Your task to perform on an android device: set default search engine in the chrome app Image 0: 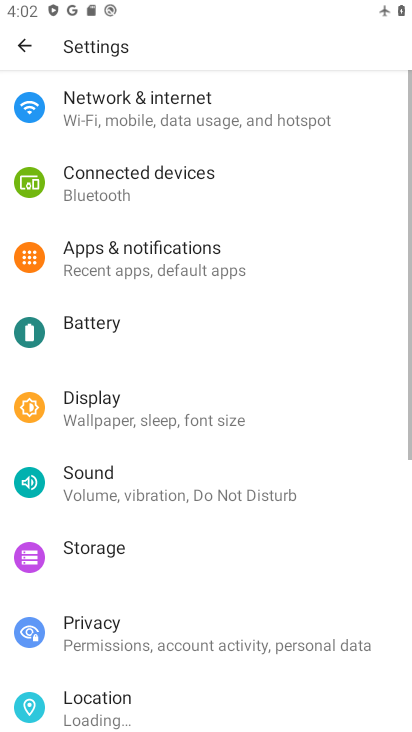
Step 0: drag from (218, 700) to (175, 241)
Your task to perform on an android device: set default search engine in the chrome app Image 1: 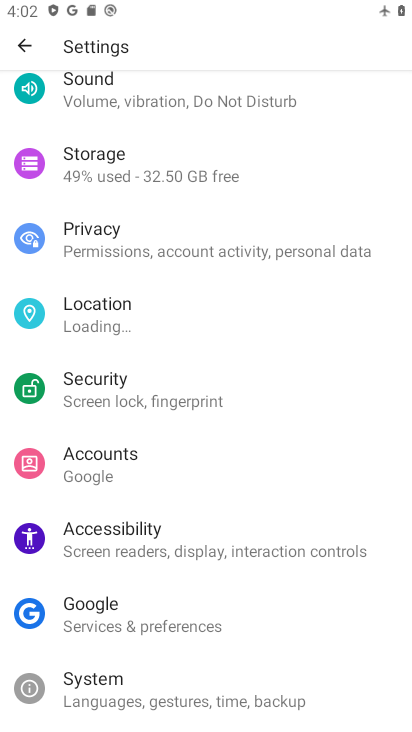
Step 1: press back button
Your task to perform on an android device: set default search engine in the chrome app Image 2: 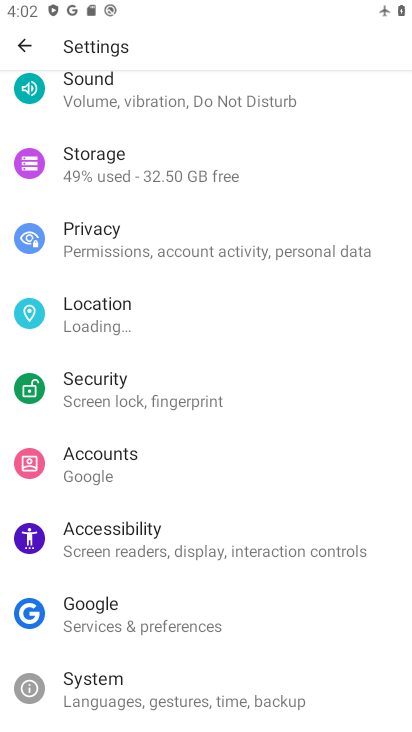
Step 2: press back button
Your task to perform on an android device: set default search engine in the chrome app Image 3: 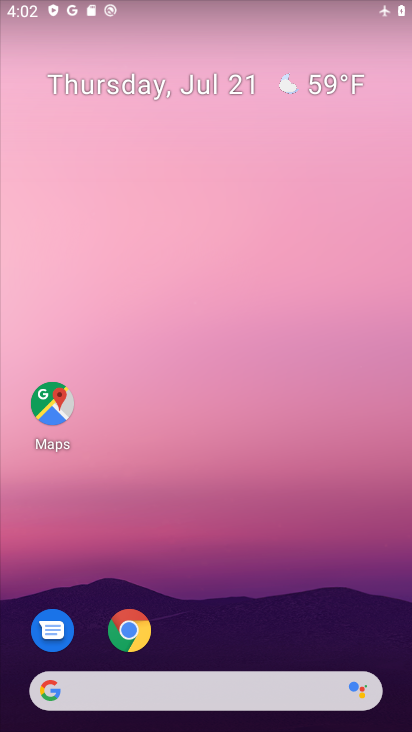
Step 3: drag from (218, 344) to (216, 34)
Your task to perform on an android device: set default search engine in the chrome app Image 4: 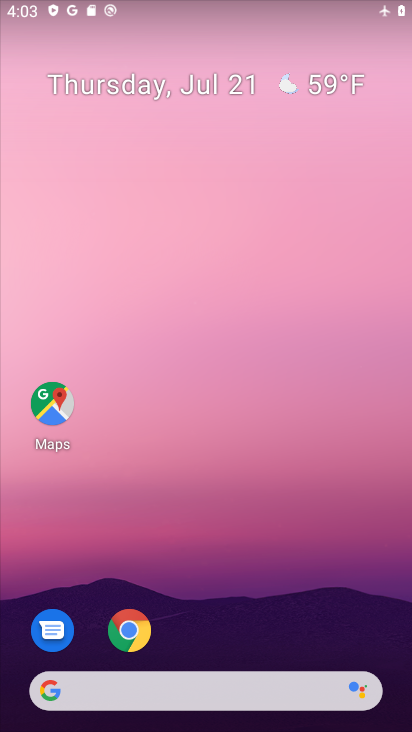
Step 4: drag from (224, 511) to (218, 38)
Your task to perform on an android device: set default search engine in the chrome app Image 5: 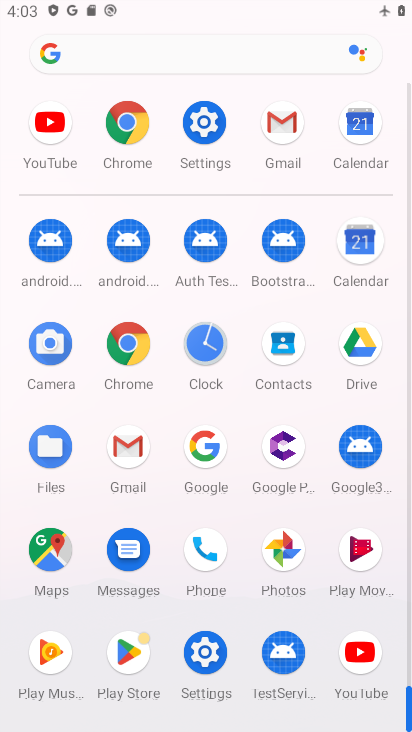
Step 5: click (123, 338)
Your task to perform on an android device: set default search engine in the chrome app Image 6: 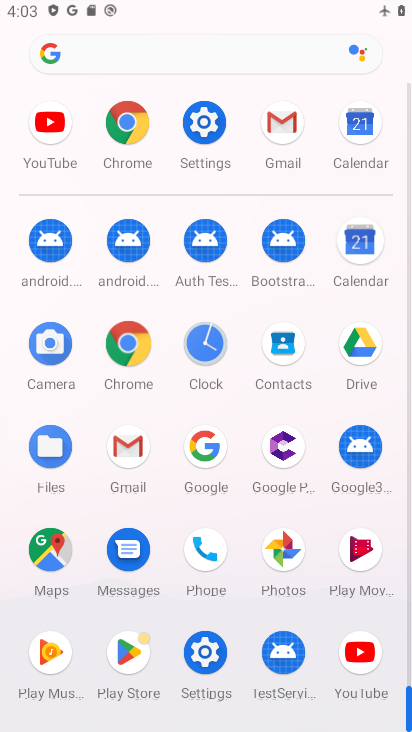
Step 6: click (123, 338)
Your task to perform on an android device: set default search engine in the chrome app Image 7: 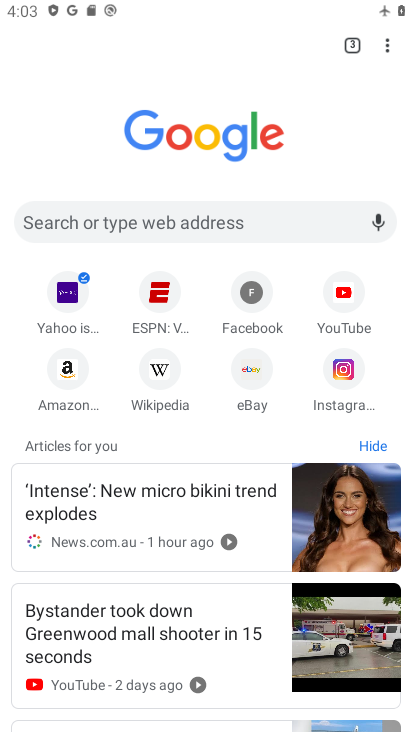
Step 7: drag from (385, 43) to (226, 373)
Your task to perform on an android device: set default search engine in the chrome app Image 8: 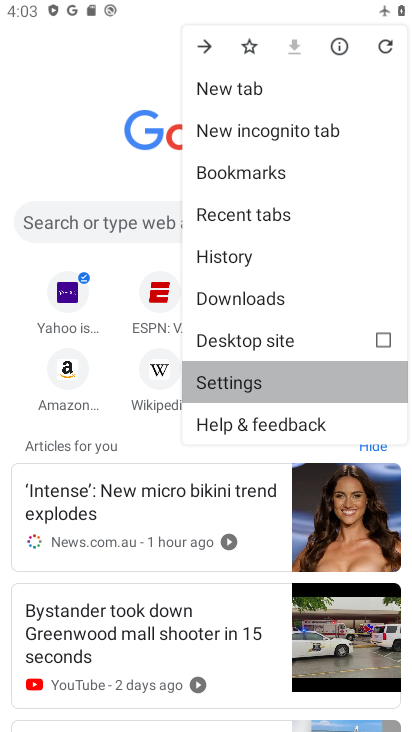
Step 8: click (234, 378)
Your task to perform on an android device: set default search engine in the chrome app Image 9: 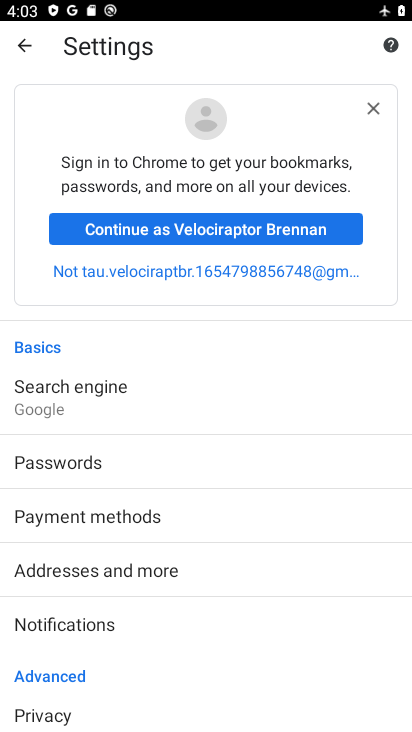
Step 9: drag from (98, 644) to (117, 270)
Your task to perform on an android device: set default search engine in the chrome app Image 10: 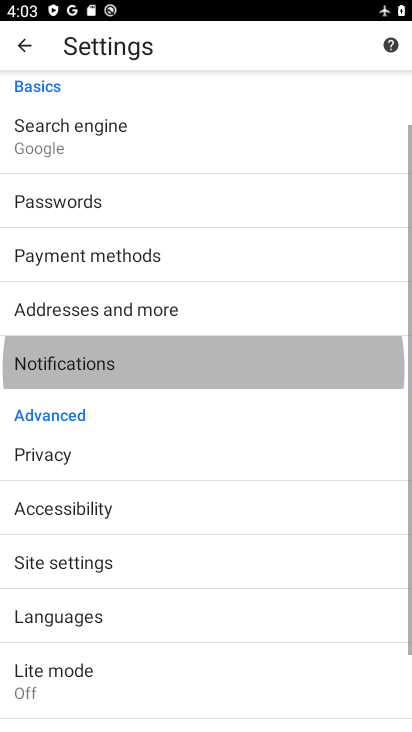
Step 10: drag from (133, 514) to (148, 291)
Your task to perform on an android device: set default search engine in the chrome app Image 11: 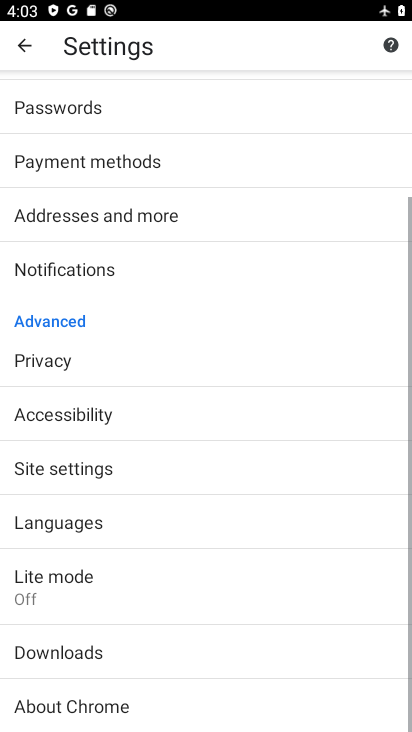
Step 11: click (54, 464)
Your task to perform on an android device: set default search engine in the chrome app Image 12: 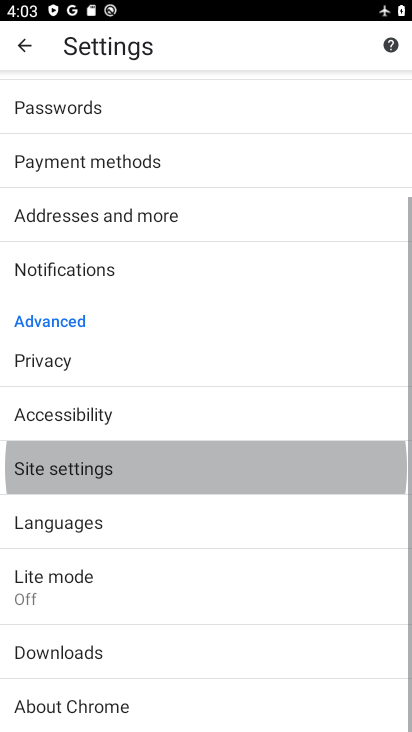
Step 12: click (60, 468)
Your task to perform on an android device: set default search engine in the chrome app Image 13: 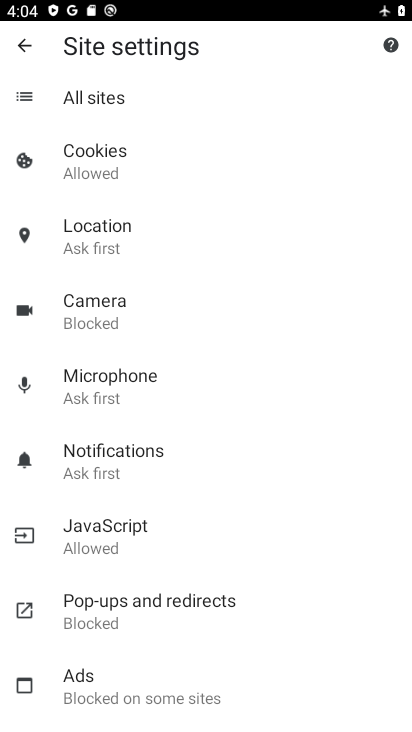
Step 13: click (20, 46)
Your task to perform on an android device: set default search engine in the chrome app Image 14: 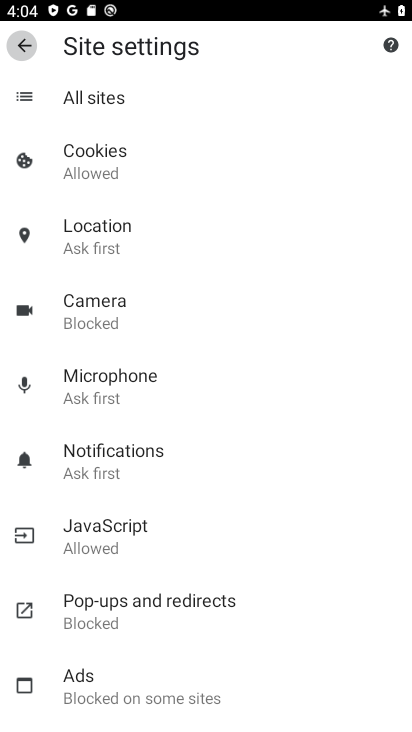
Step 14: click (20, 46)
Your task to perform on an android device: set default search engine in the chrome app Image 15: 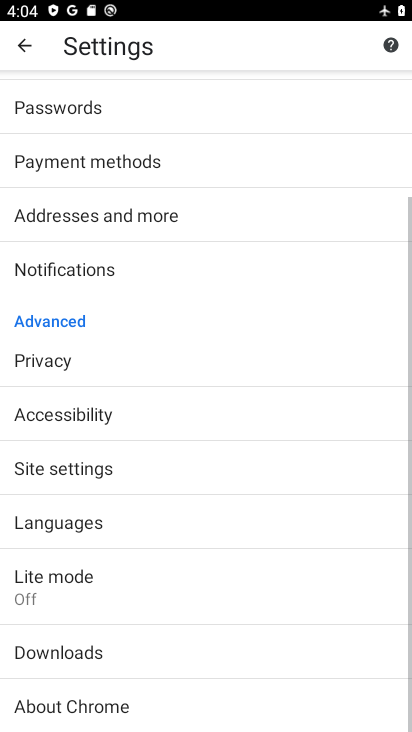
Step 15: drag from (67, 214) to (108, 440)
Your task to perform on an android device: set default search engine in the chrome app Image 16: 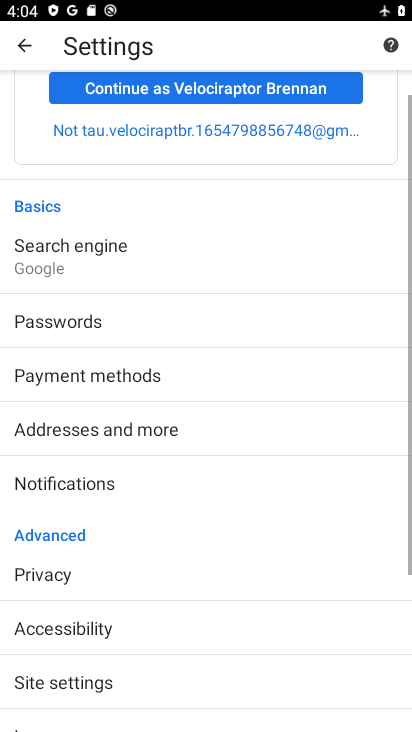
Step 16: drag from (118, 199) to (146, 451)
Your task to perform on an android device: set default search engine in the chrome app Image 17: 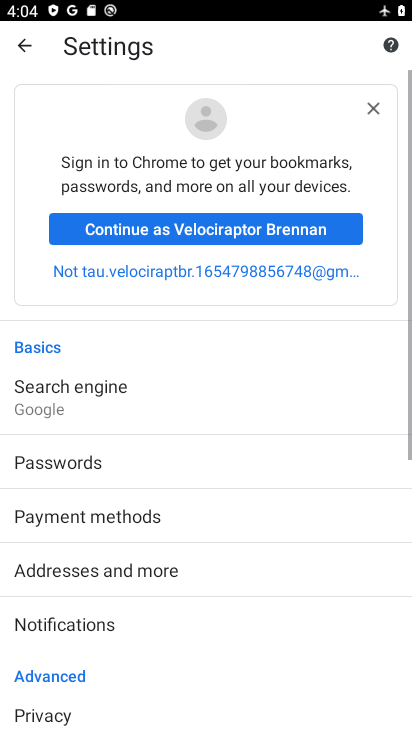
Step 17: drag from (117, 269) to (116, 468)
Your task to perform on an android device: set default search engine in the chrome app Image 18: 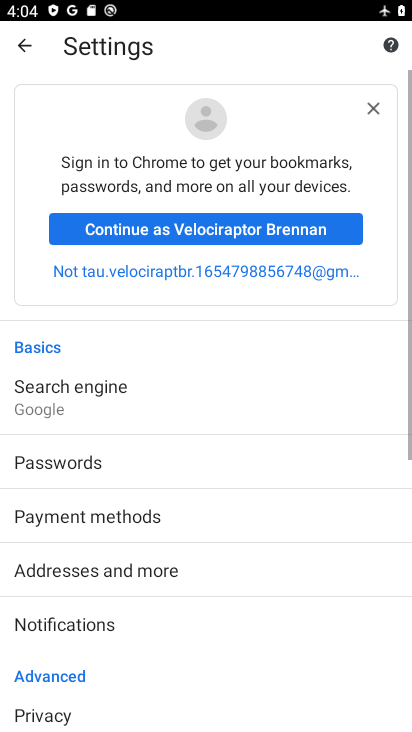
Step 18: click (68, 254)
Your task to perform on an android device: set default search engine in the chrome app Image 19: 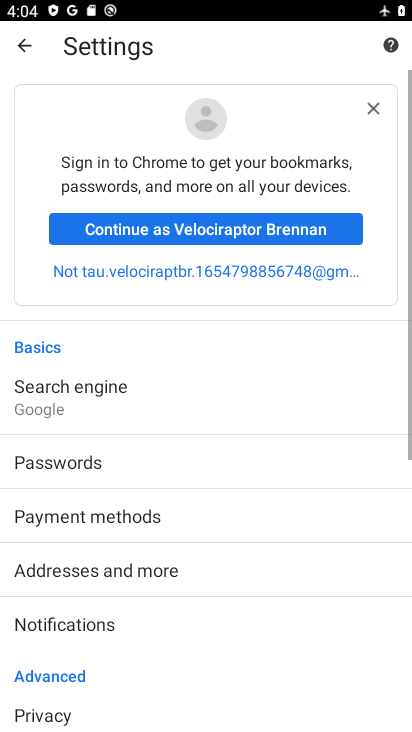
Step 19: click (68, 259)
Your task to perform on an android device: set default search engine in the chrome app Image 20: 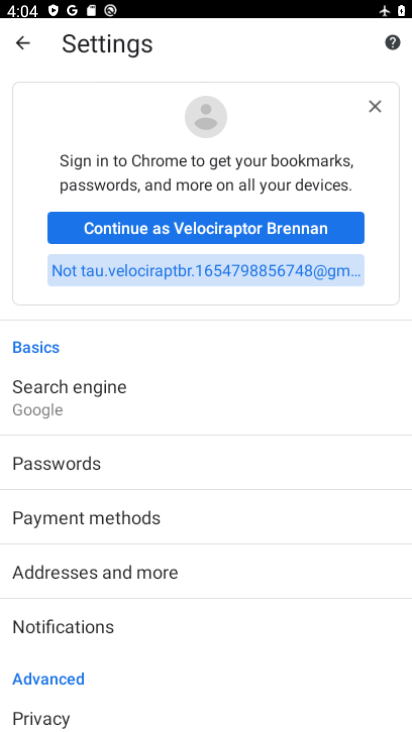
Step 20: click (38, 372)
Your task to perform on an android device: set default search engine in the chrome app Image 21: 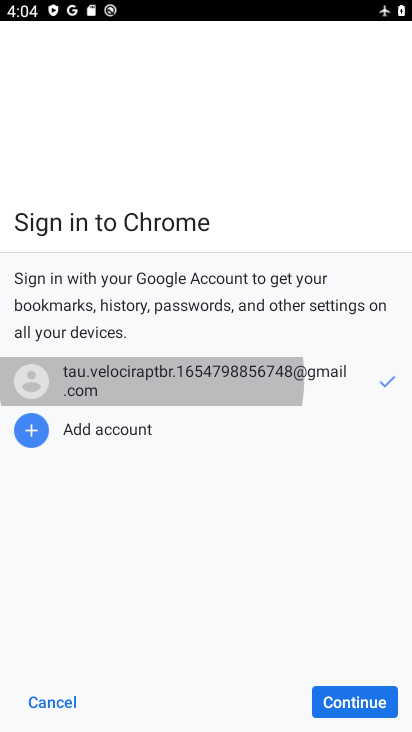
Step 21: click (41, 376)
Your task to perform on an android device: set default search engine in the chrome app Image 22: 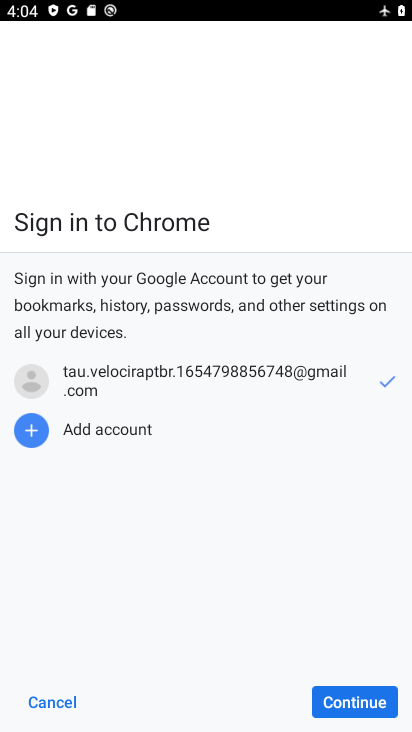
Step 22: click (50, 690)
Your task to perform on an android device: set default search engine in the chrome app Image 23: 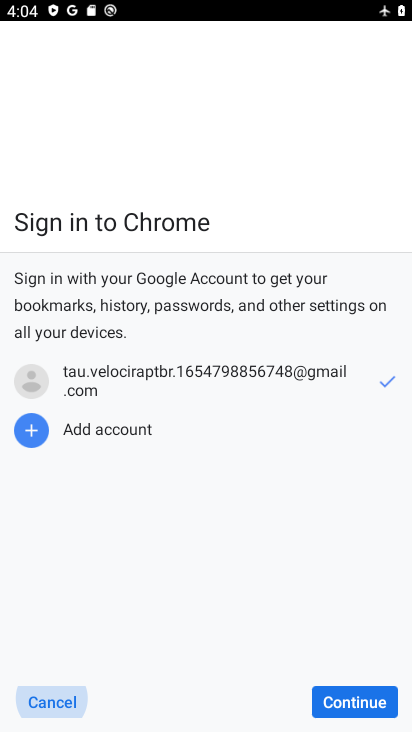
Step 23: click (52, 687)
Your task to perform on an android device: set default search engine in the chrome app Image 24: 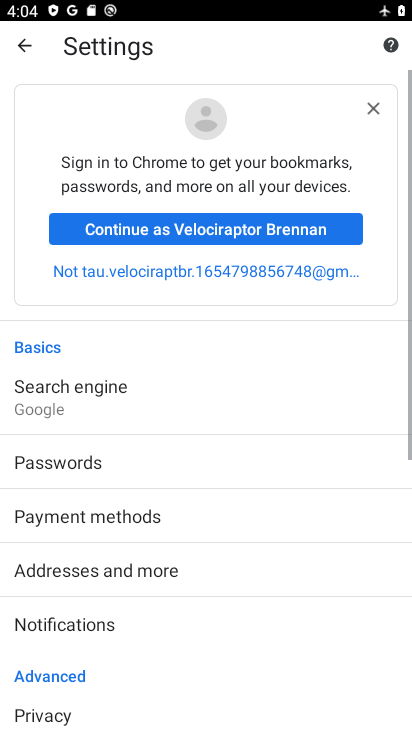
Step 24: task complete